Your task to perform on an android device: Open calendar and show me the second week of next month Image 0: 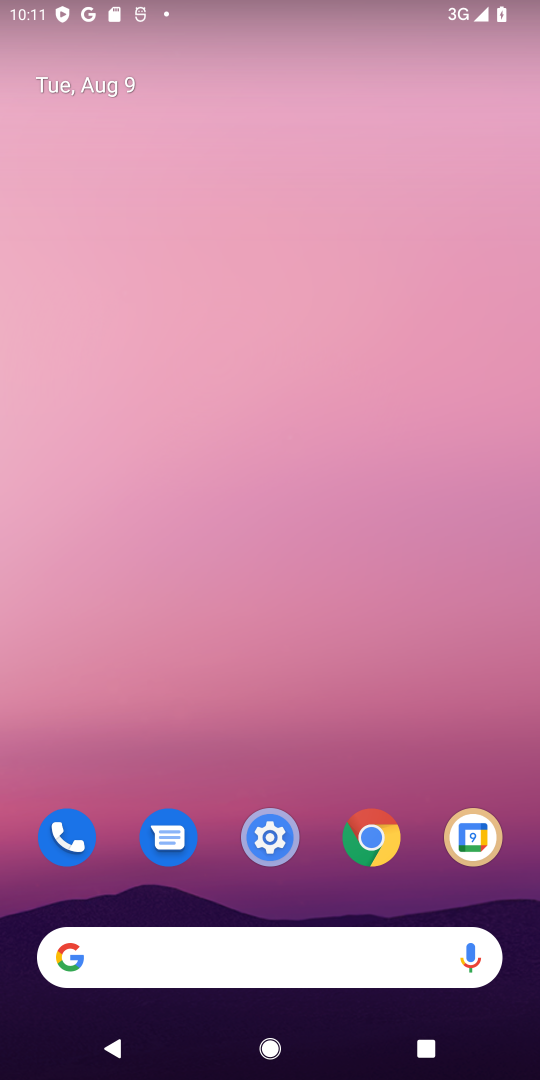
Step 0: drag from (300, 896) to (288, 220)
Your task to perform on an android device: Open calendar and show me the second week of next month Image 1: 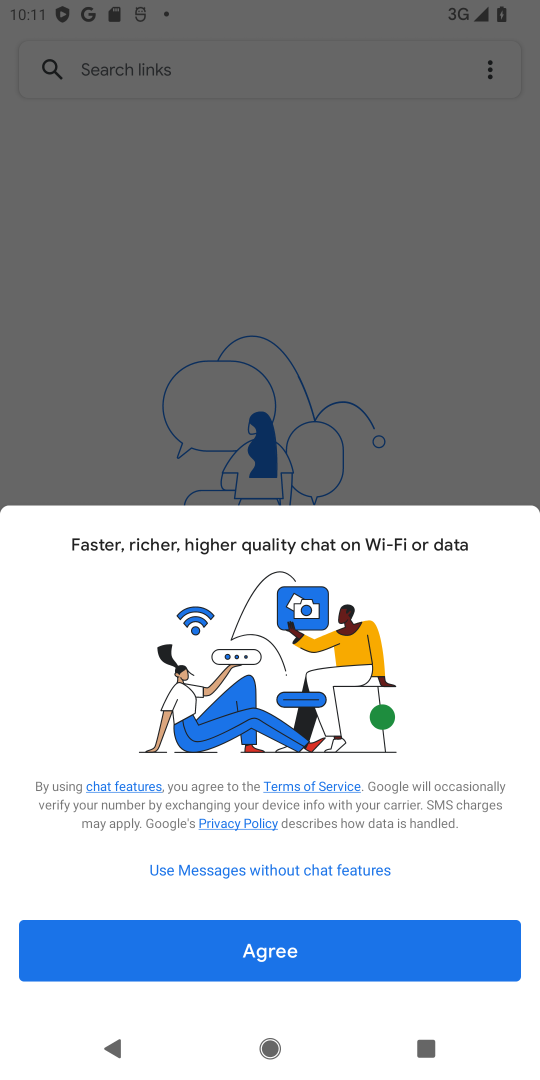
Step 1: press home button
Your task to perform on an android device: Open calendar and show me the second week of next month Image 2: 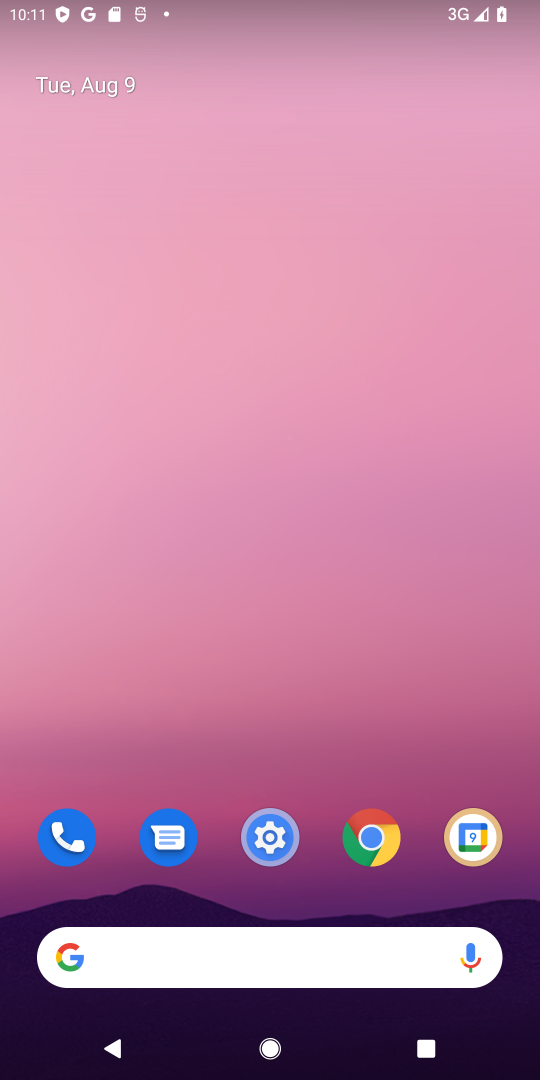
Step 2: drag from (318, 863) to (357, 6)
Your task to perform on an android device: Open calendar and show me the second week of next month Image 3: 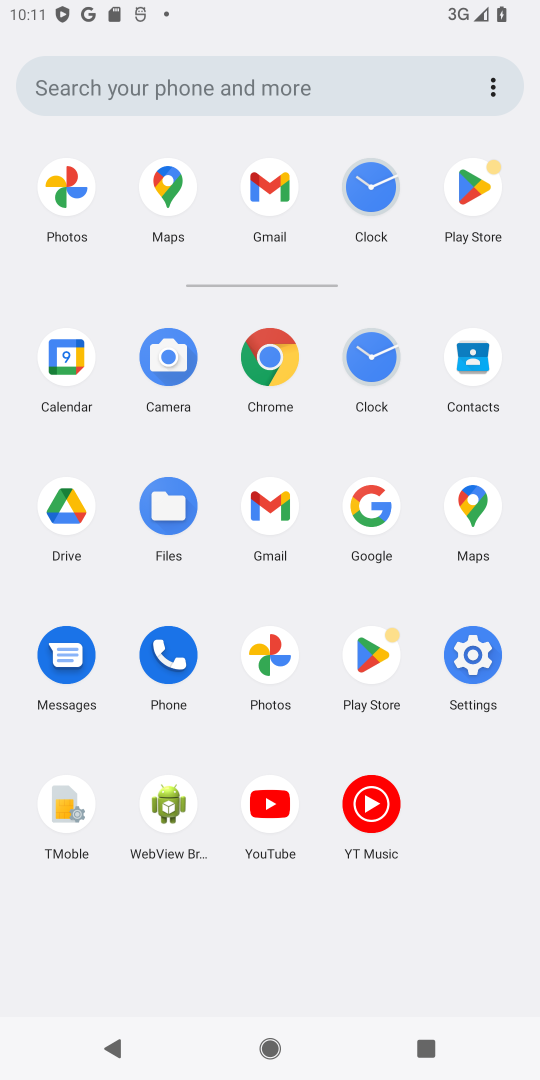
Step 3: click (63, 361)
Your task to perform on an android device: Open calendar and show me the second week of next month Image 4: 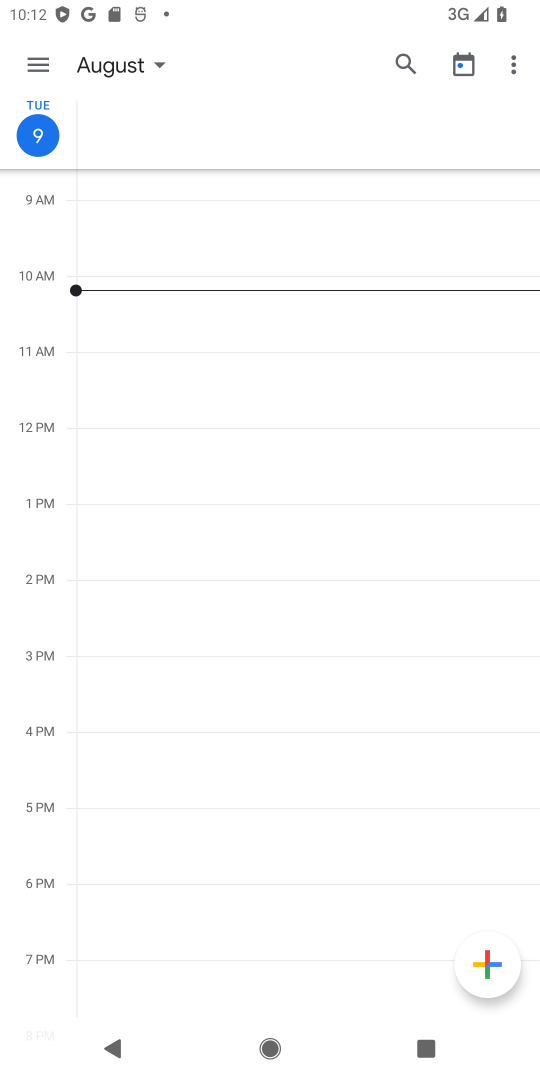
Step 4: click (153, 63)
Your task to perform on an android device: Open calendar and show me the second week of next month Image 5: 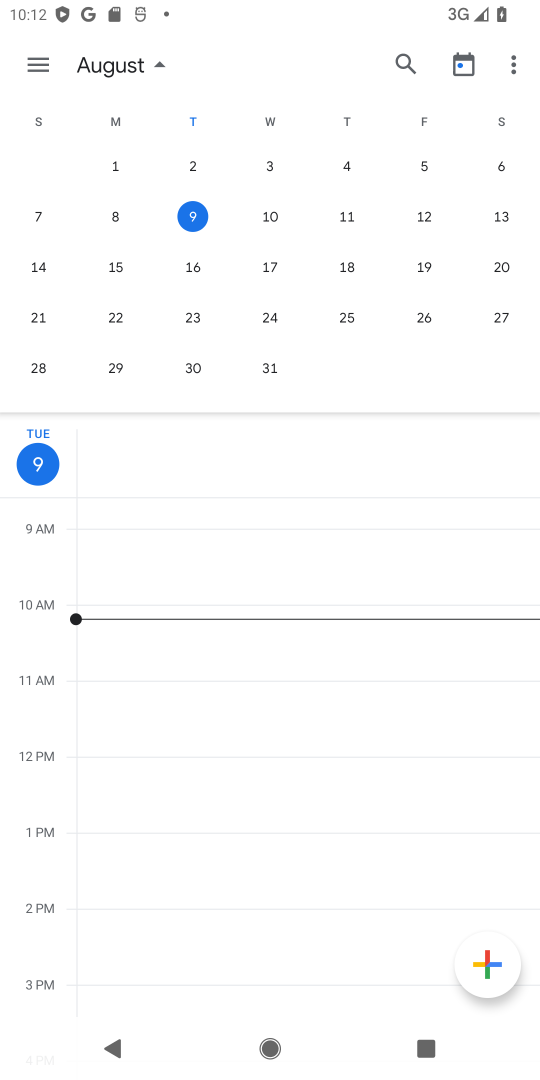
Step 5: drag from (490, 260) to (32, 260)
Your task to perform on an android device: Open calendar and show me the second week of next month Image 6: 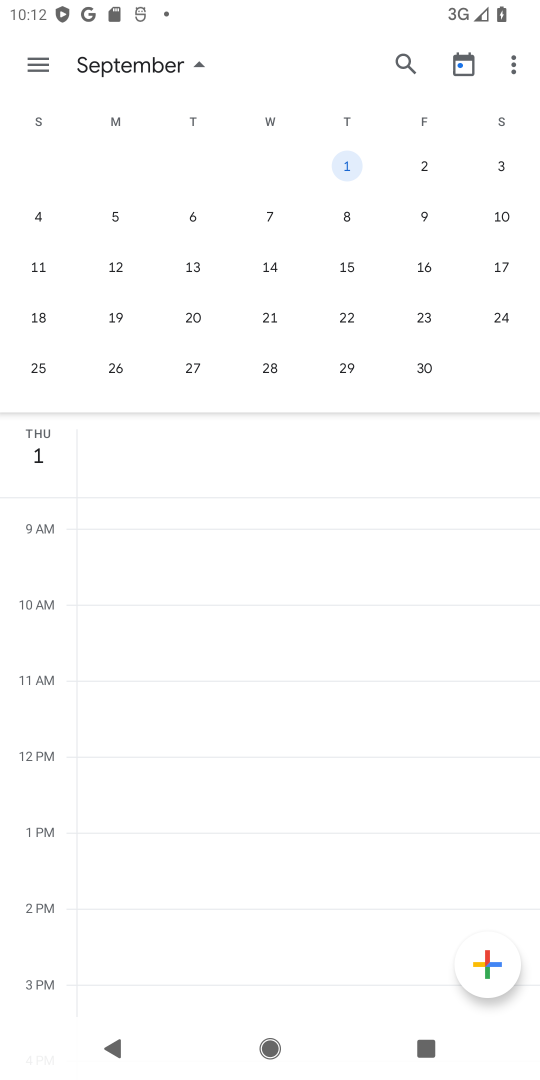
Step 6: click (115, 259)
Your task to perform on an android device: Open calendar and show me the second week of next month Image 7: 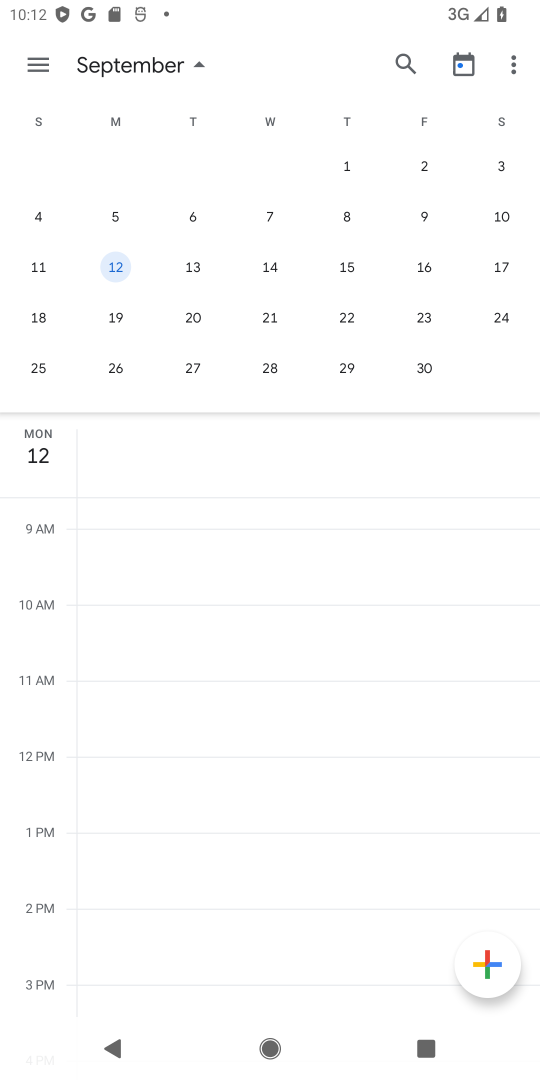
Step 7: click (106, 259)
Your task to perform on an android device: Open calendar and show me the second week of next month Image 8: 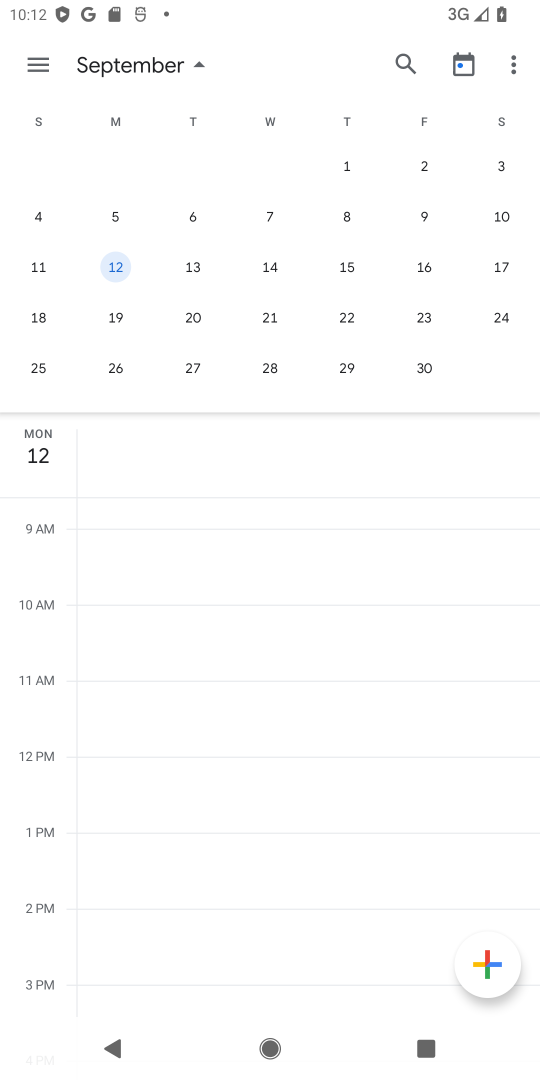
Step 8: click (40, 68)
Your task to perform on an android device: Open calendar and show me the second week of next month Image 9: 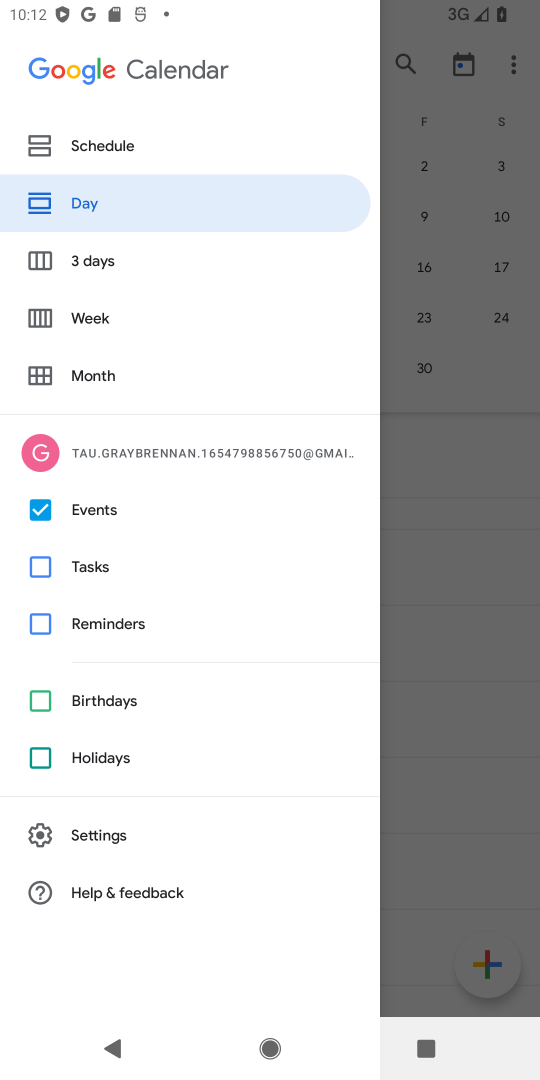
Step 9: click (83, 308)
Your task to perform on an android device: Open calendar and show me the second week of next month Image 10: 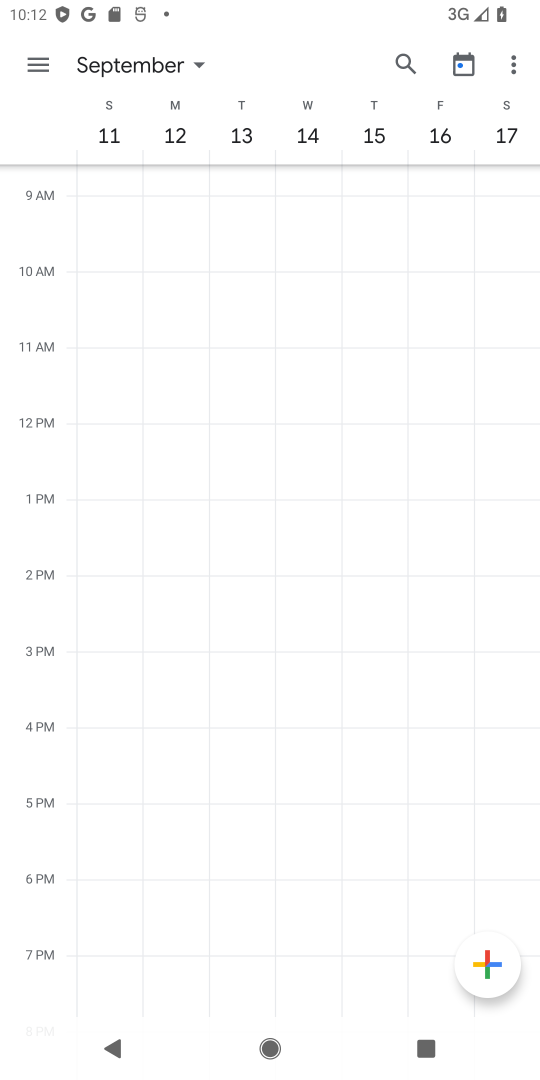
Step 10: task complete